Your task to perform on an android device: turn off picture-in-picture Image 0: 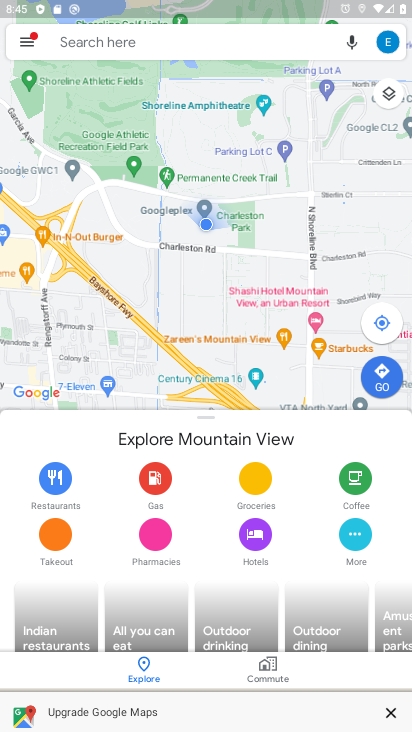
Step 0: press home button
Your task to perform on an android device: turn off picture-in-picture Image 1: 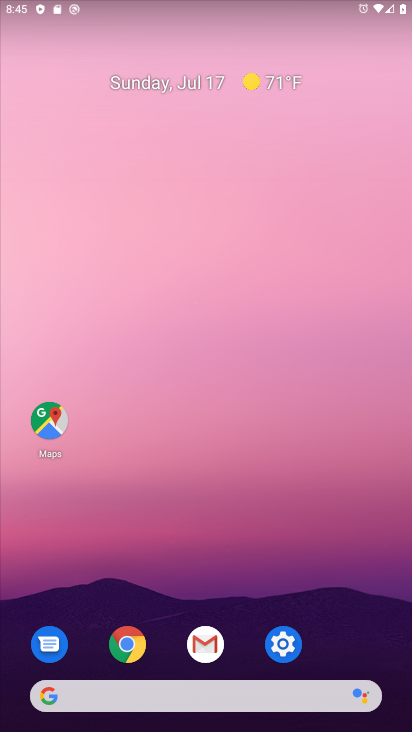
Step 1: drag from (269, 676) to (363, 102)
Your task to perform on an android device: turn off picture-in-picture Image 2: 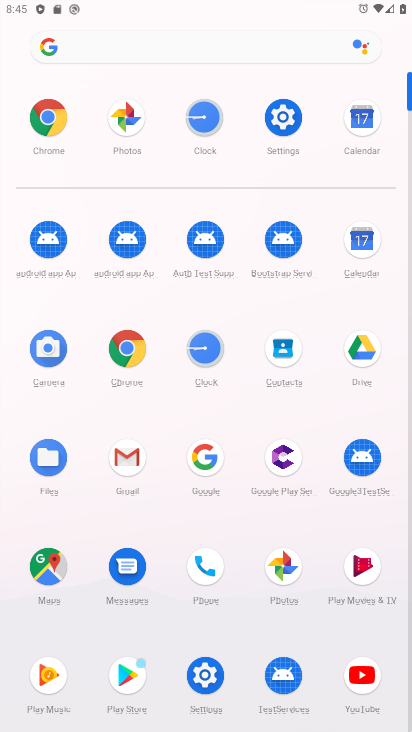
Step 2: click (373, 673)
Your task to perform on an android device: turn off picture-in-picture Image 3: 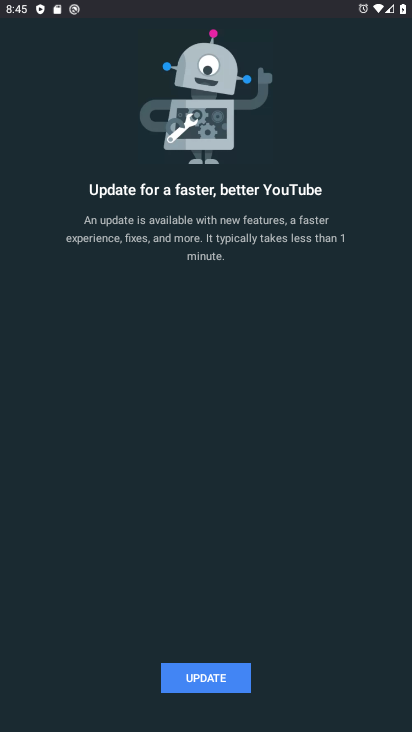
Step 3: click (204, 690)
Your task to perform on an android device: turn off picture-in-picture Image 4: 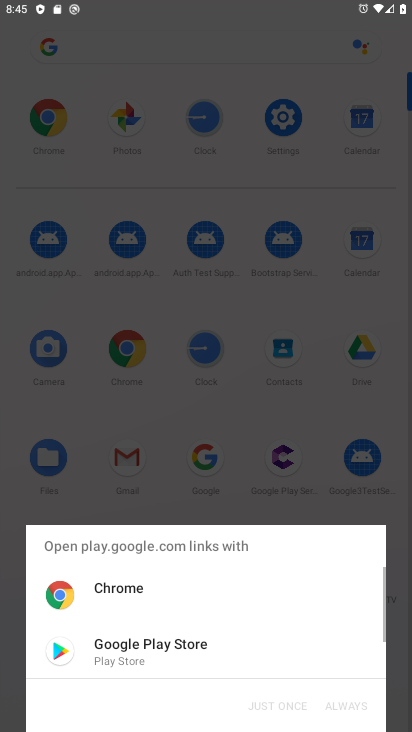
Step 4: click (192, 648)
Your task to perform on an android device: turn off picture-in-picture Image 5: 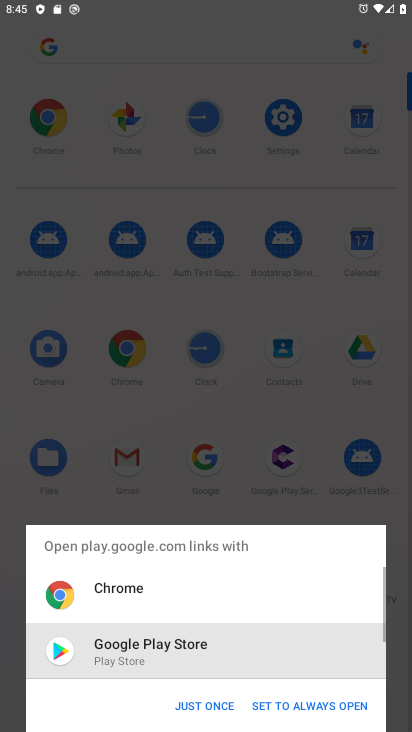
Step 5: click (201, 702)
Your task to perform on an android device: turn off picture-in-picture Image 6: 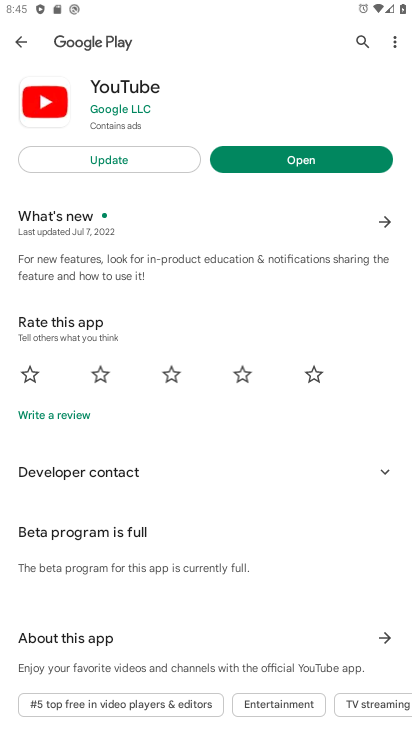
Step 6: click (126, 150)
Your task to perform on an android device: turn off picture-in-picture Image 7: 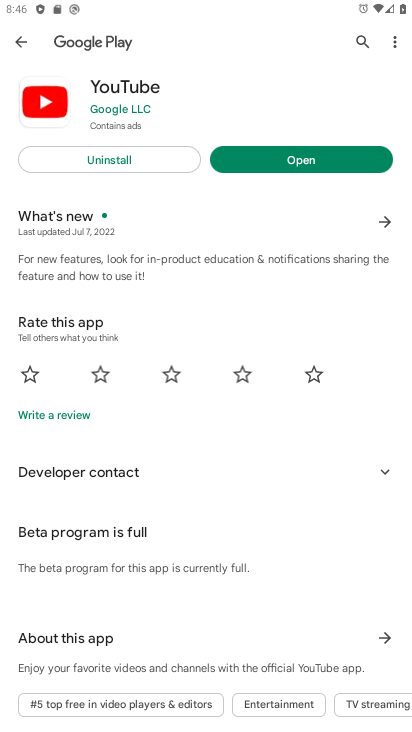
Step 7: click (263, 156)
Your task to perform on an android device: turn off picture-in-picture Image 8: 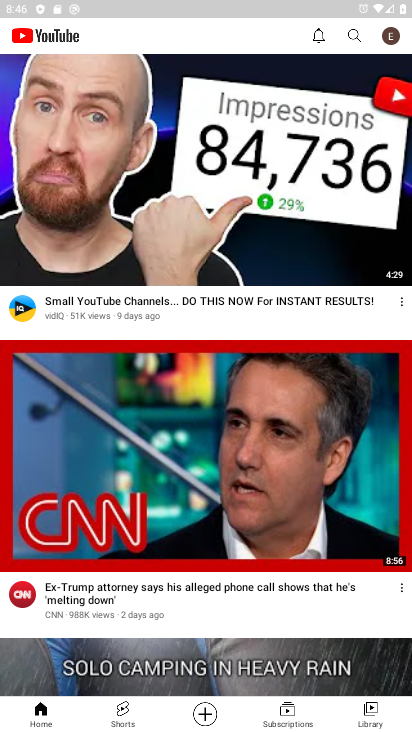
Step 8: click (386, 41)
Your task to perform on an android device: turn off picture-in-picture Image 9: 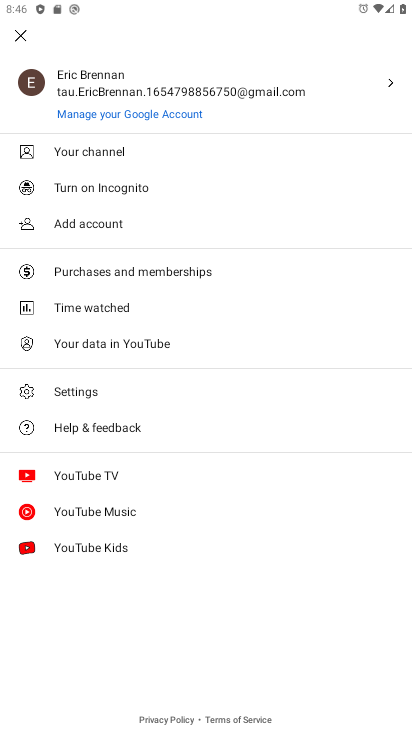
Step 9: click (76, 393)
Your task to perform on an android device: turn off picture-in-picture Image 10: 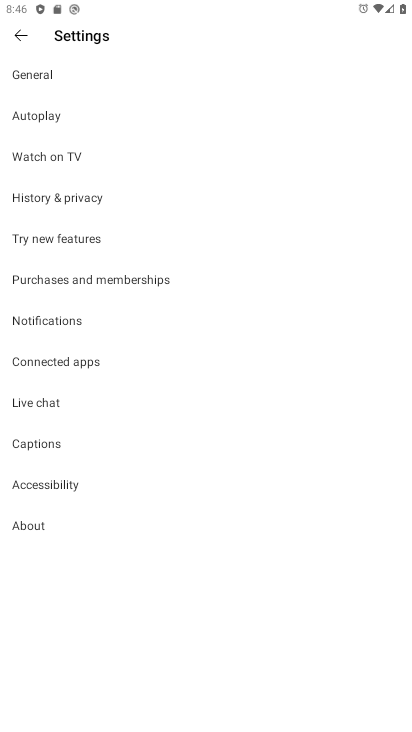
Step 10: click (64, 76)
Your task to perform on an android device: turn off picture-in-picture Image 11: 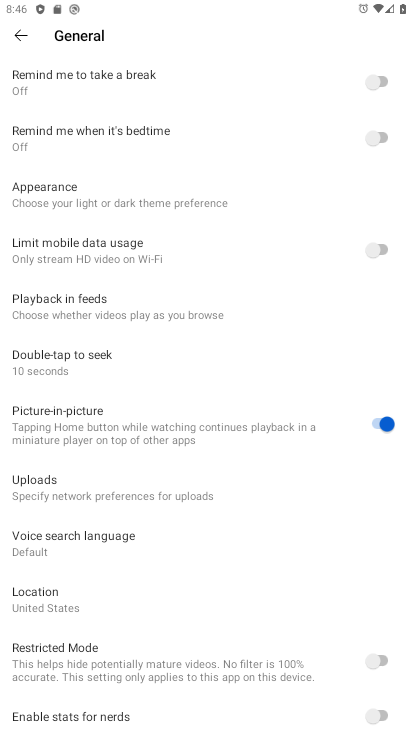
Step 11: click (136, 421)
Your task to perform on an android device: turn off picture-in-picture Image 12: 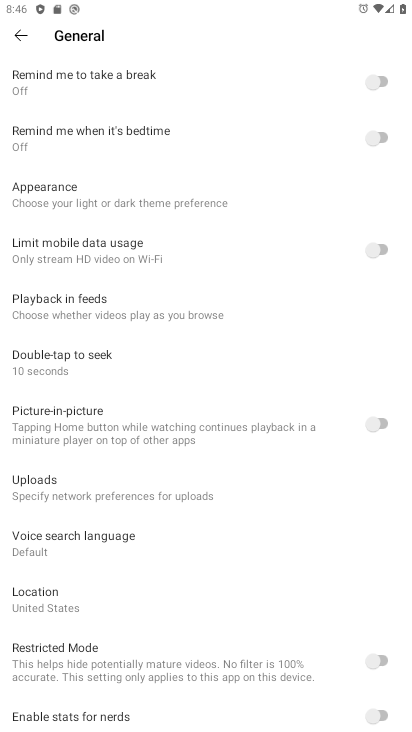
Step 12: task complete